Your task to perform on an android device: Open calendar and show me the second week of next month Image 0: 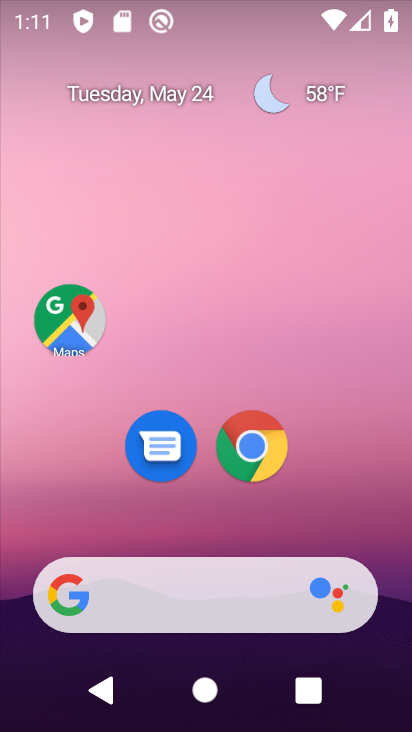
Step 0: drag from (279, 590) to (320, 185)
Your task to perform on an android device: Open calendar and show me the second week of next month Image 1: 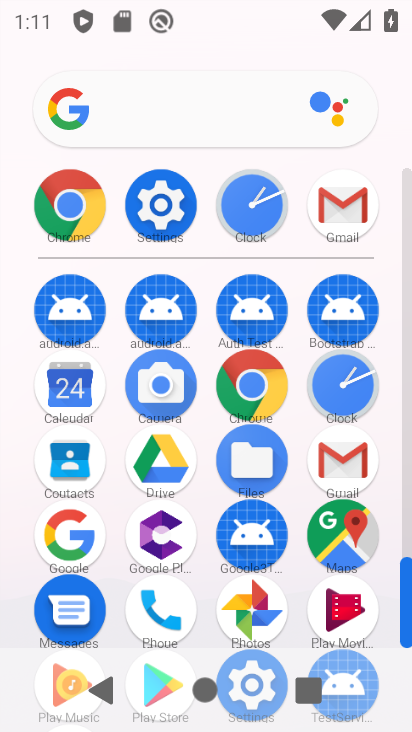
Step 1: drag from (287, 482) to (267, 156)
Your task to perform on an android device: Open calendar and show me the second week of next month Image 2: 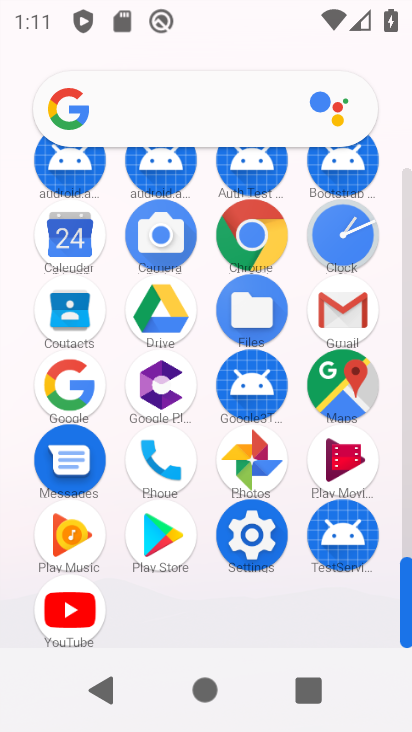
Step 2: click (80, 251)
Your task to perform on an android device: Open calendar and show me the second week of next month Image 3: 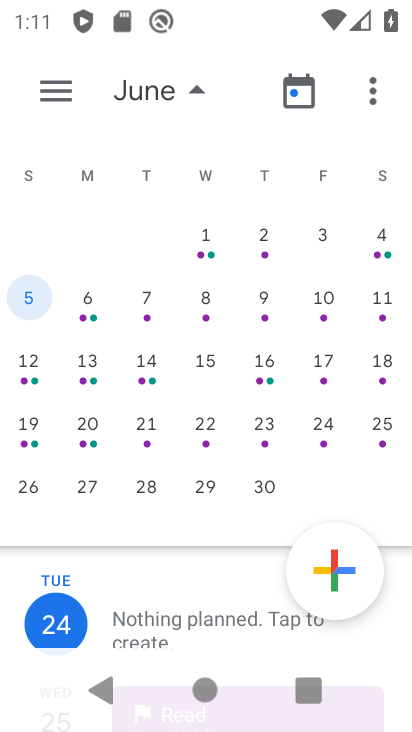
Step 3: click (28, 378)
Your task to perform on an android device: Open calendar and show me the second week of next month Image 4: 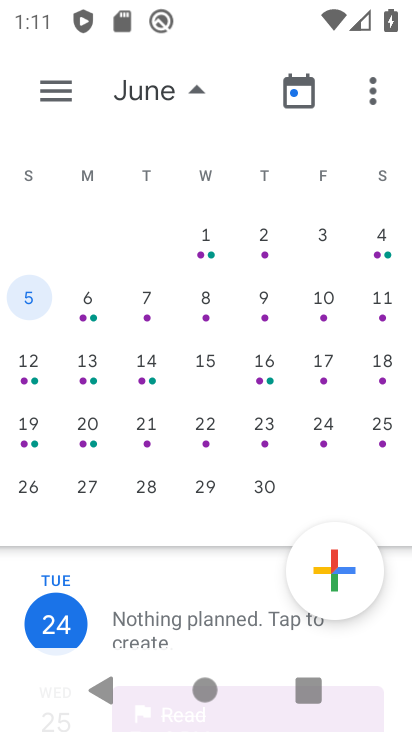
Step 4: click (38, 369)
Your task to perform on an android device: Open calendar and show me the second week of next month Image 5: 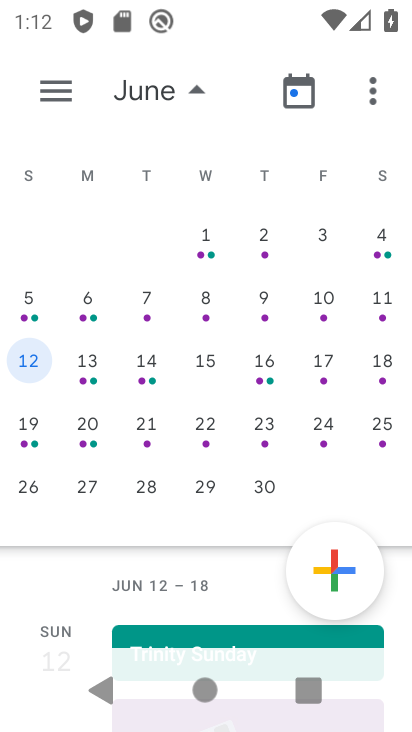
Step 5: task complete